Your task to perform on an android device: turn off priority inbox in the gmail app Image 0: 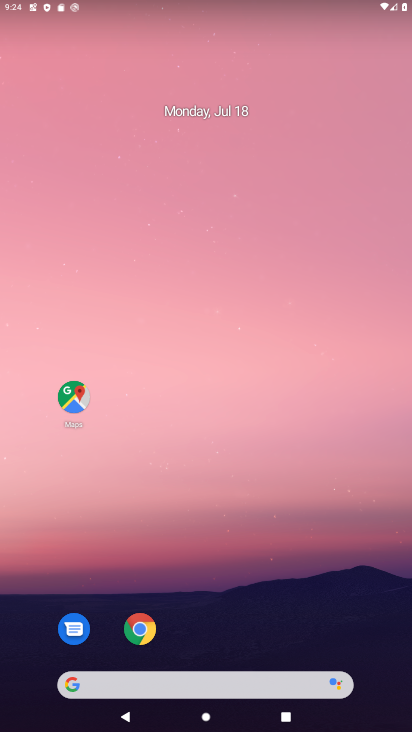
Step 0: drag from (323, 584) to (264, 127)
Your task to perform on an android device: turn off priority inbox in the gmail app Image 1: 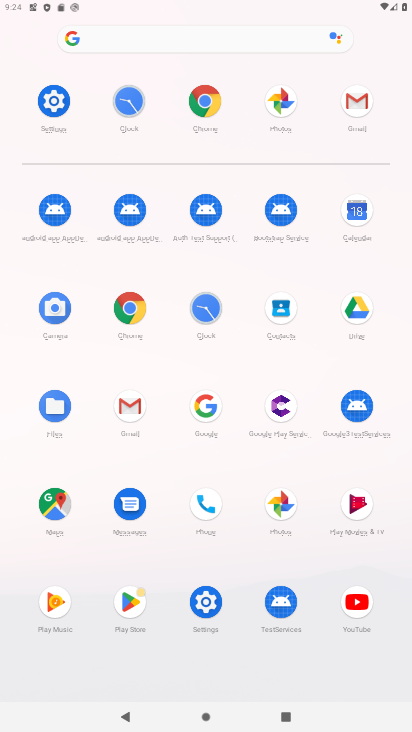
Step 1: click (362, 101)
Your task to perform on an android device: turn off priority inbox in the gmail app Image 2: 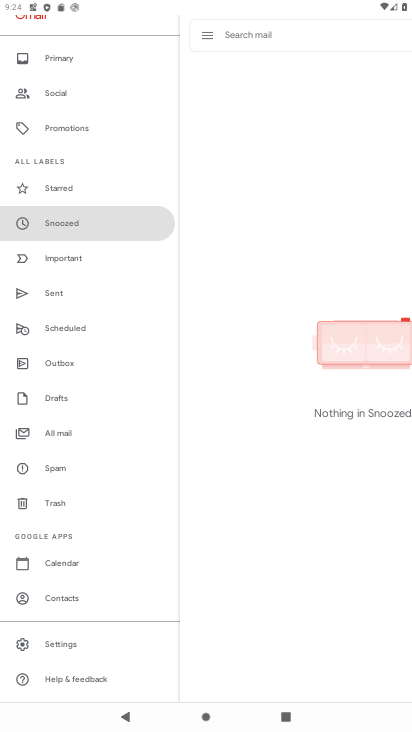
Step 2: click (79, 640)
Your task to perform on an android device: turn off priority inbox in the gmail app Image 3: 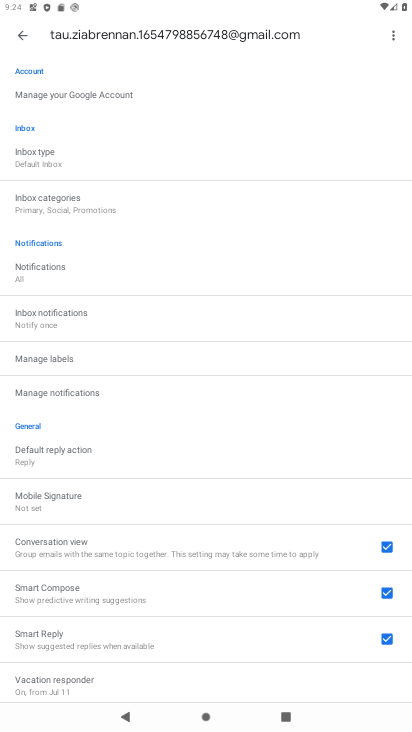
Step 3: click (49, 154)
Your task to perform on an android device: turn off priority inbox in the gmail app Image 4: 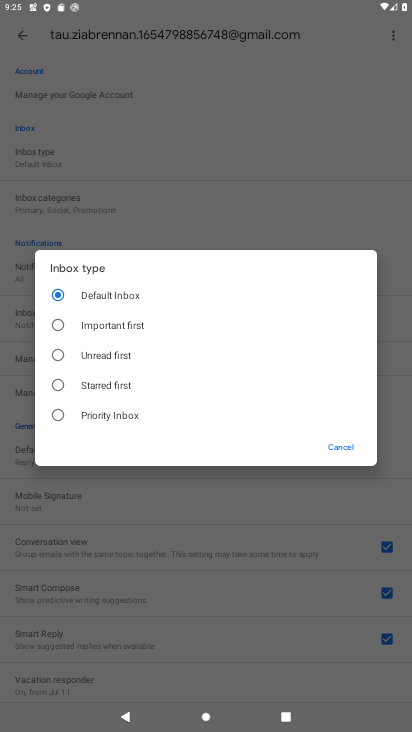
Step 4: task complete